Your task to perform on an android device: check storage Image 0: 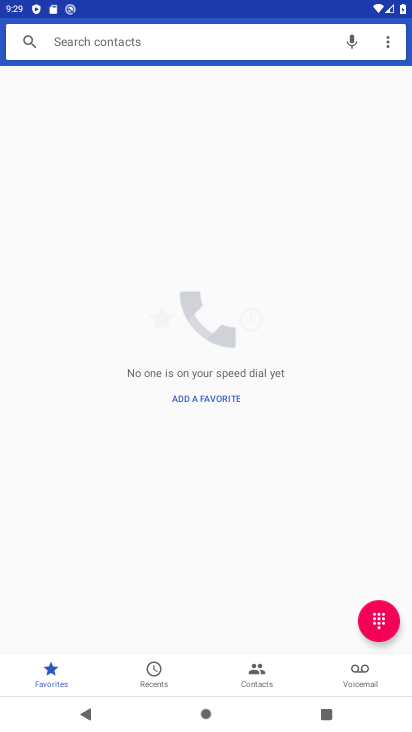
Step 0: press home button
Your task to perform on an android device: check storage Image 1: 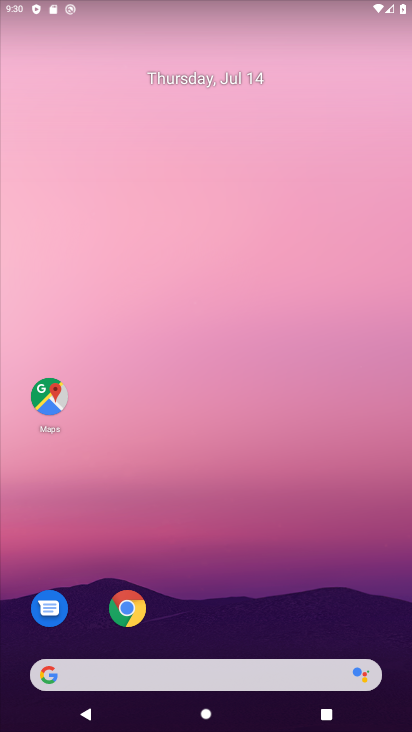
Step 1: drag from (256, 632) to (364, 0)
Your task to perform on an android device: check storage Image 2: 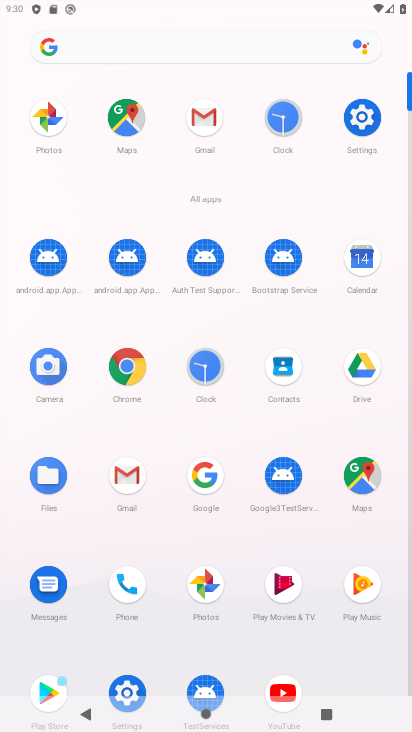
Step 2: click (356, 123)
Your task to perform on an android device: check storage Image 3: 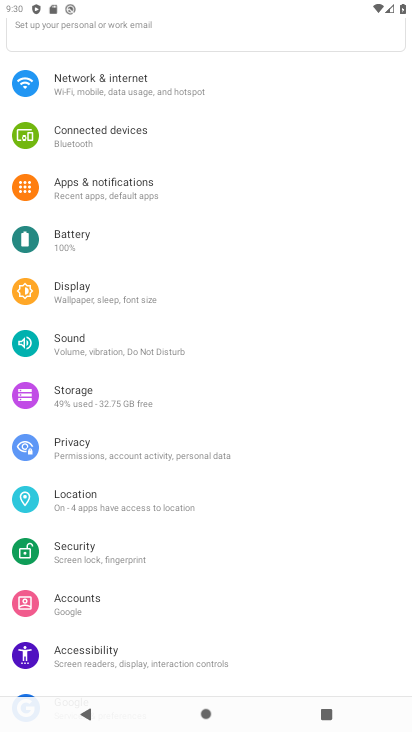
Step 3: click (99, 398)
Your task to perform on an android device: check storage Image 4: 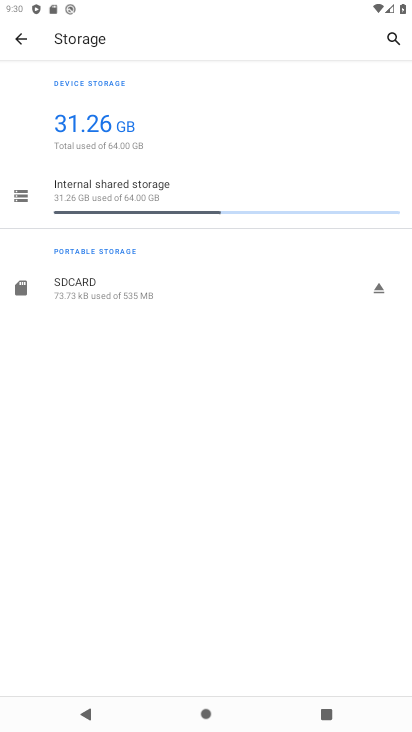
Step 4: task complete